Your task to perform on an android device: allow notifications from all sites in the chrome app Image 0: 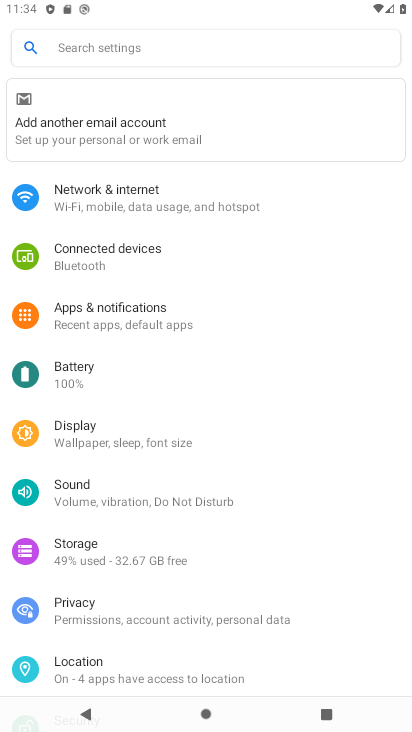
Step 0: press back button
Your task to perform on an android device: allow notifications from all sites in the chrome app Image 1: 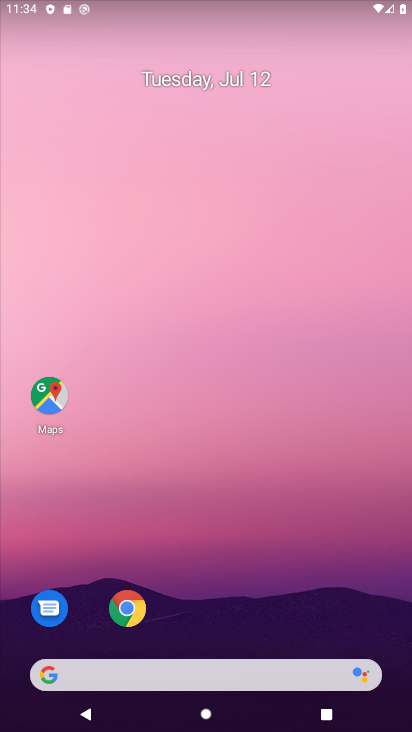
Step 1: click (121, 606)
Your task to perform on an android device: allow notifications from all sites in the chrome app Image 2: 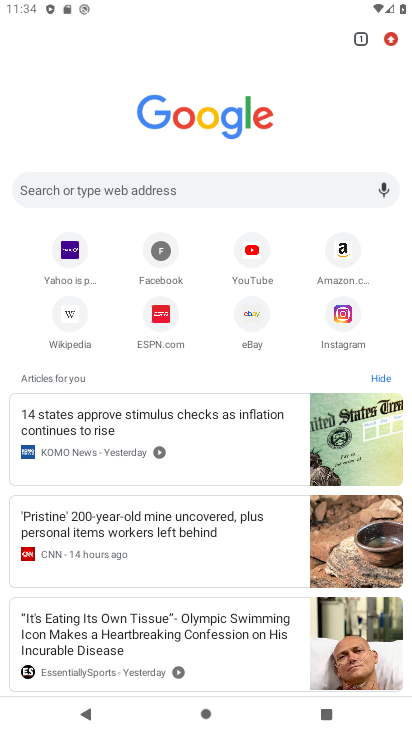
Step 2: drag from (392, 40) to (254, 359)
Your task to perform on an android device: allow notifications from all sites in the chrome app Image 3: 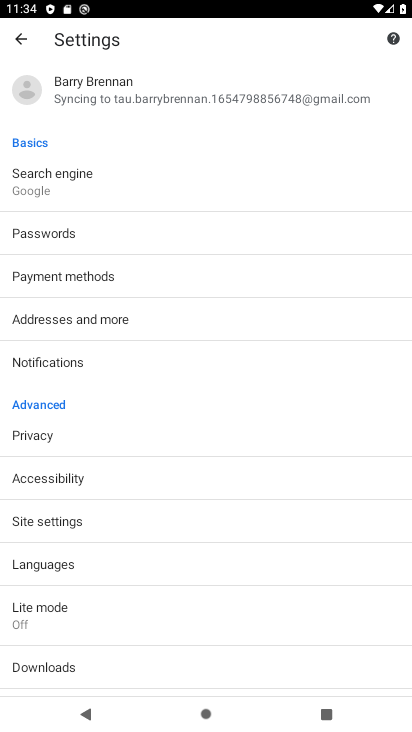
Step 3: click (43, 370)
Your task to perform on an android device: allow notifications from all sites in the chrome app Image 4: 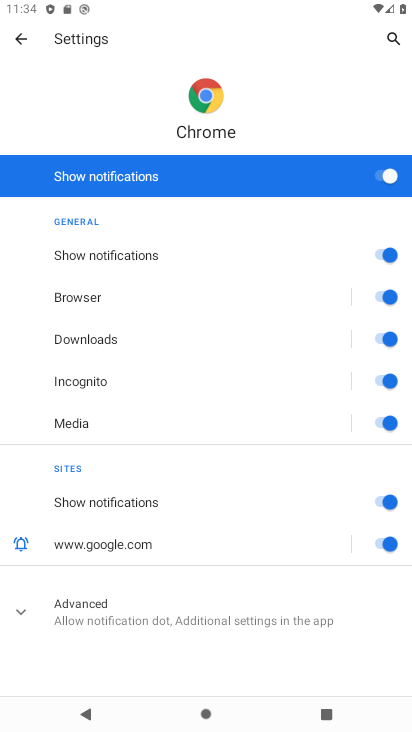
Step 4: task complete